Your task to perform on an android device: turn off location history Image 0: 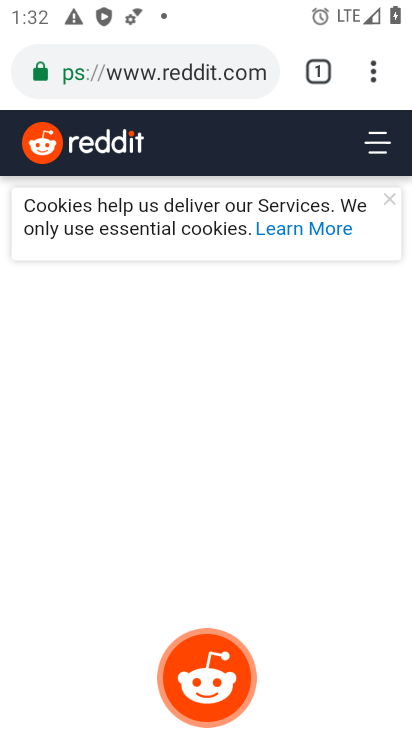
Step 0: press home button
Your task to perform on an android device: turn off location history Image 1: 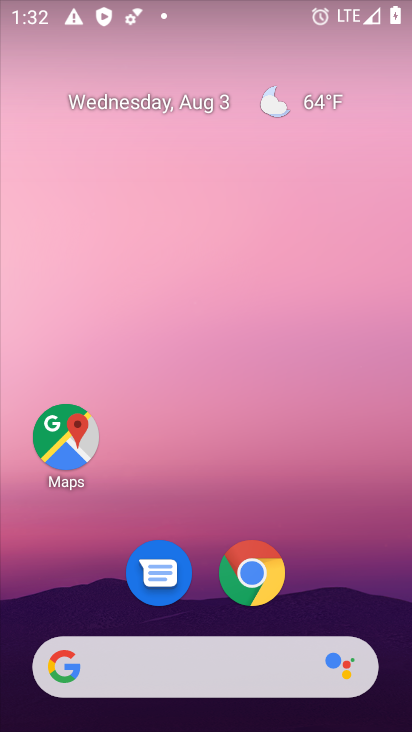
Step 1: drag from (295, 544) to (312, 156)
Your task to perform on an android device: turn off location history Image 2: 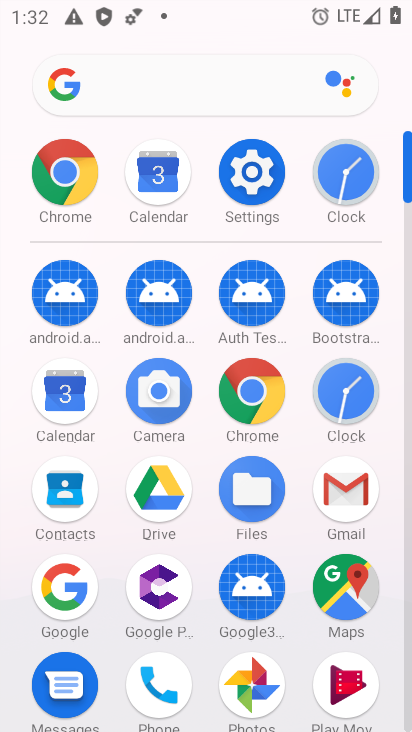
Step 2: click (257, 189)
Your task to perform on an android device: turn off location history Image 3: 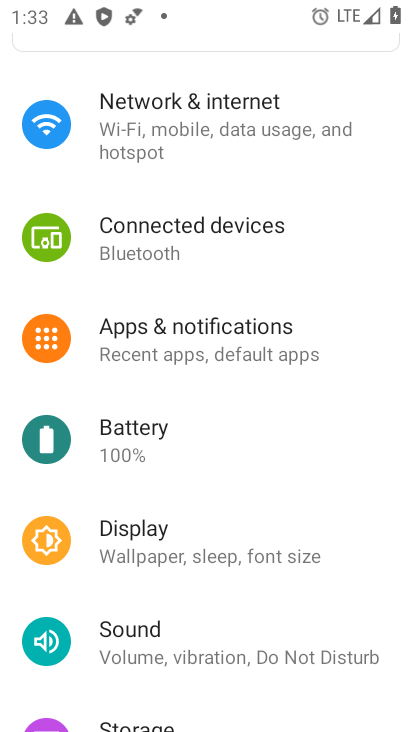
Step 3: drag from (219, 539) to (271, 236)
Your task to perform on an android device: turn off location history Image 4: 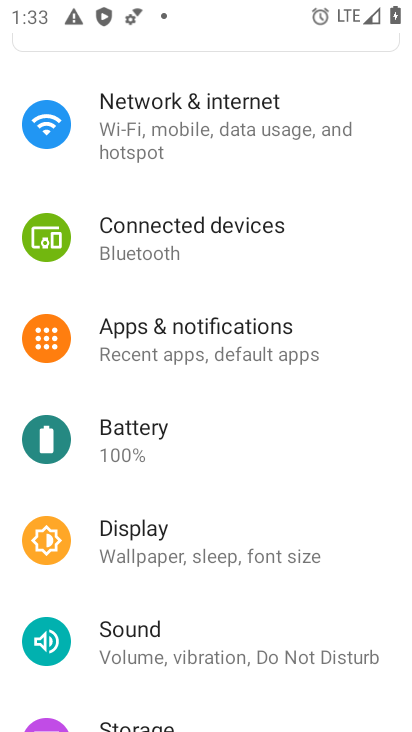
Step 4: drag from (137, 598) to (146, 243)
Your task to perform on an android device: turn off location history Image 5: 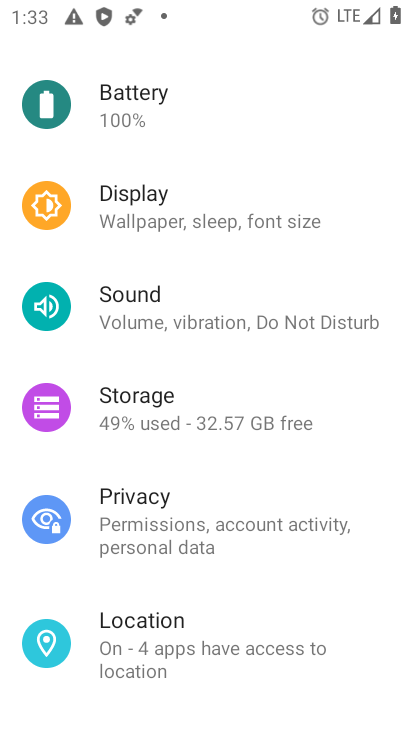
Step 5: click (174, 634)
Your task to perform on an android device: turn off location history Image 6: 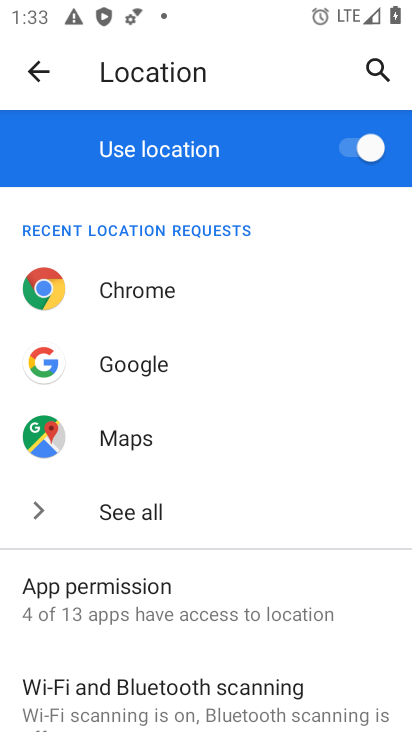
Step 6: drag from (261, 464) to (320, 246)
Your task to perform on an android device: turn off location history Image 7: 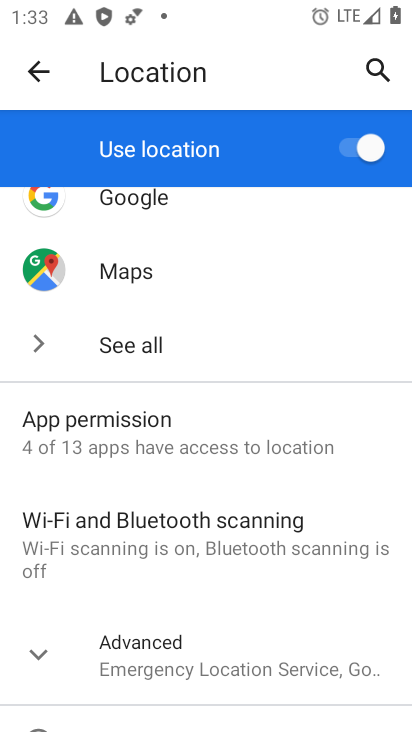
Step 7: drag from (197, 610) to (205, 268)
Your task to perform on an android device: turn off location history Image 8: 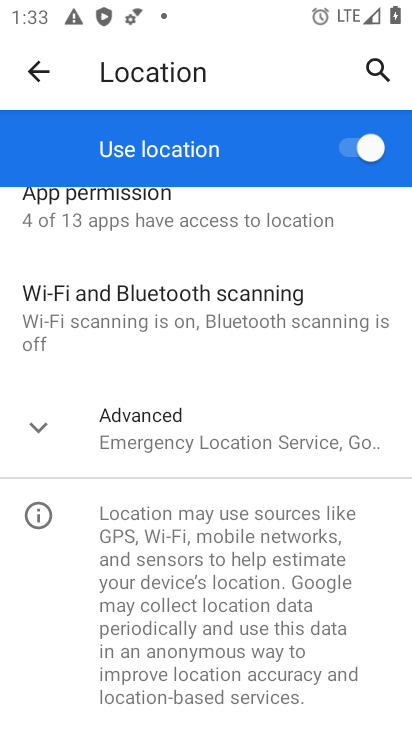
Step 8: click (207, 433)
Your task to perform on an android device: turn off location history Image 9: 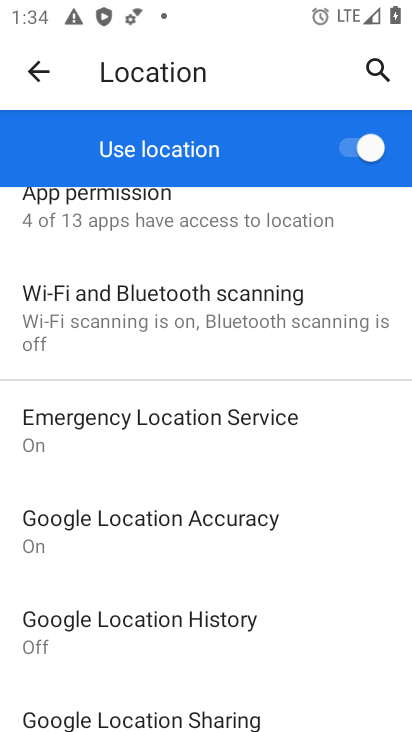
Step 9: click (145, 636)
Your task to perform on an android device: turn off location history Image 10: 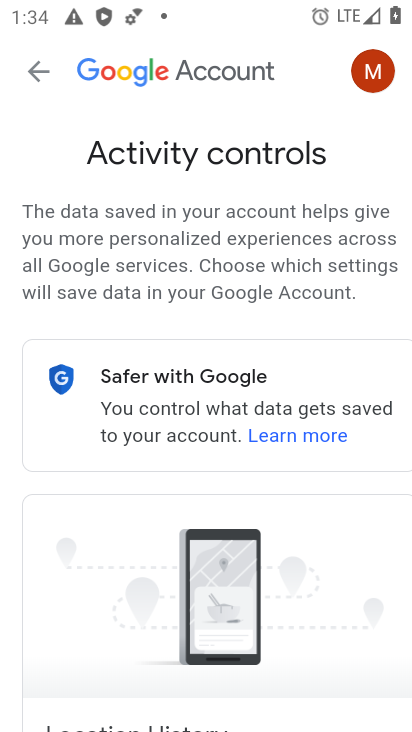
Step 10: task complete